Your task to perform on an android device: What's the weather going to be this weekend? Image 0: 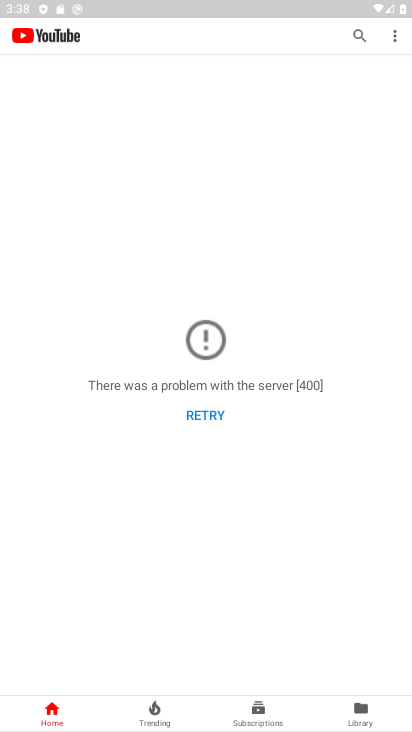
Step 0: press home button
Your task to perform on an android device: What's the weather going to be this weekend? Image 1: 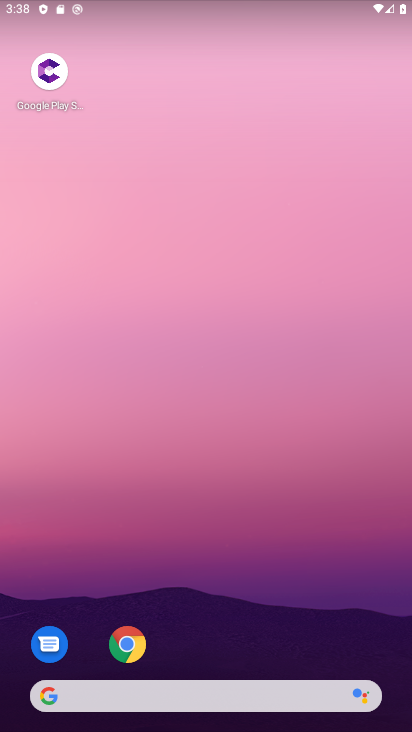
Step 1: drag from (72, 353) to (408, 529)
Your task to perform on an android device: What's the weather going to be this weekend? Image 2: 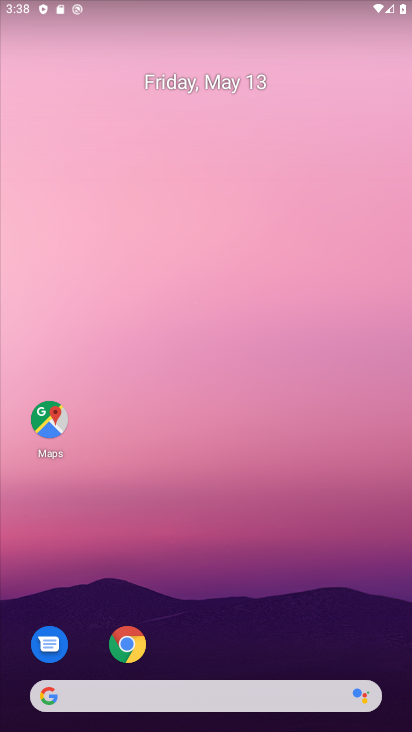
Step 2: drag from (21, 313) to (406, 284)
Your task to perform on an android device: What's the weather going to be this weekend? Image 3: 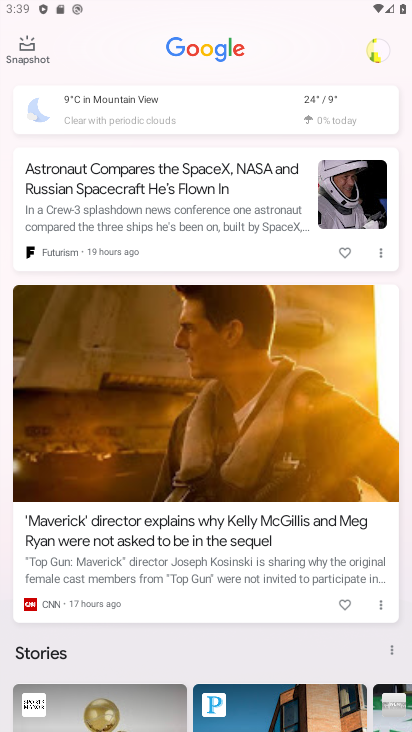
Step 3: click (319, 106)
Your task to perform on an android device: What's the weather going to be this weekend? Image 4: 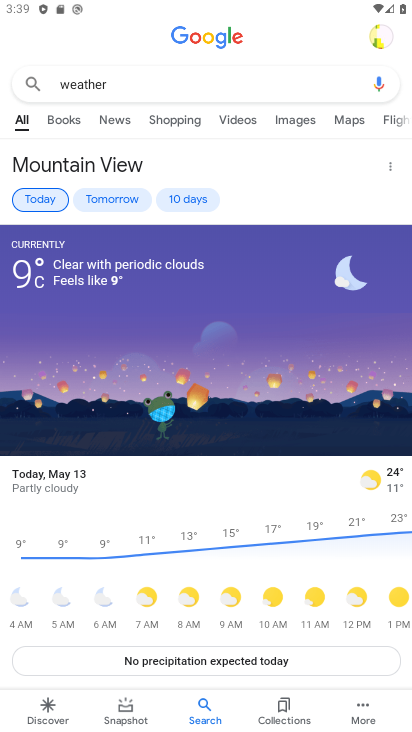
Step 4: click (174, 205)
Your task to perform on an android device: What's the weather going to be this weekend? Image 5: 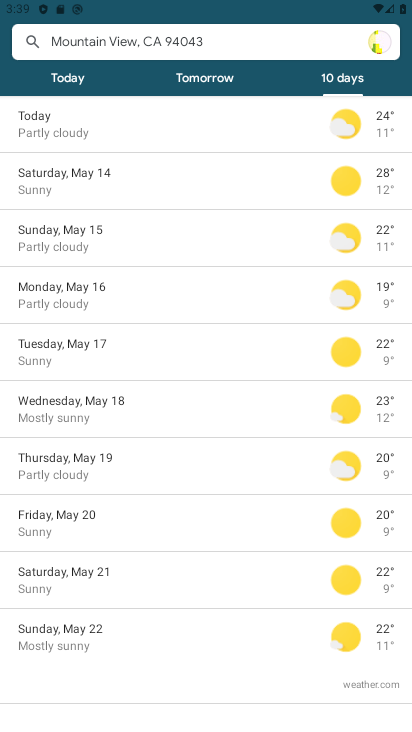
Step 5: task complete